Your task to perform on an android device: Open sound settings Image 0: 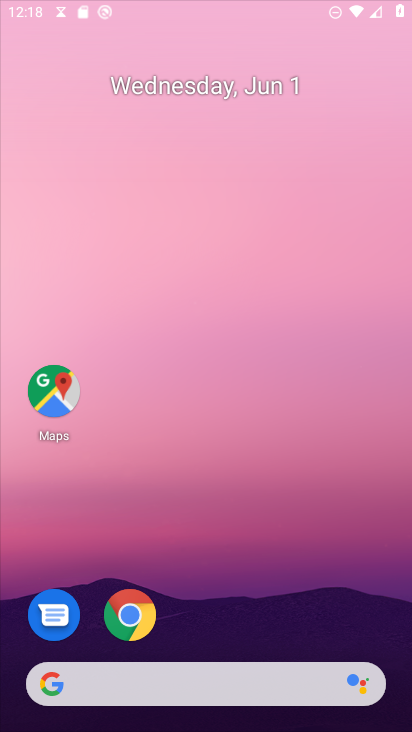
Step 0: click (289, 103)
Your task to perform on an android device: Open sound settings Image 1: 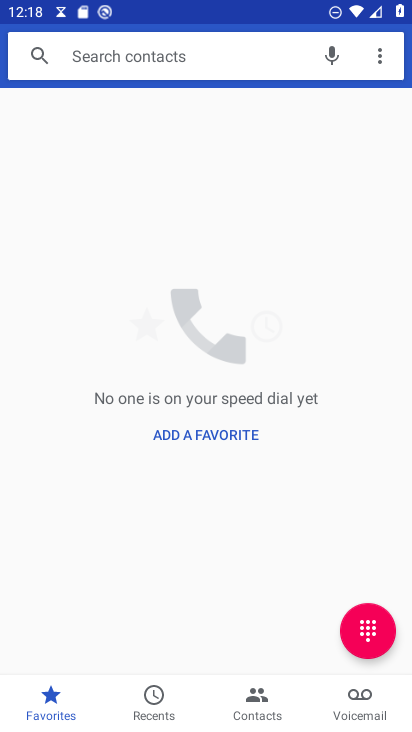
Step 1: press home button
Your task to perform on an android device: Open sound settings Image 2: 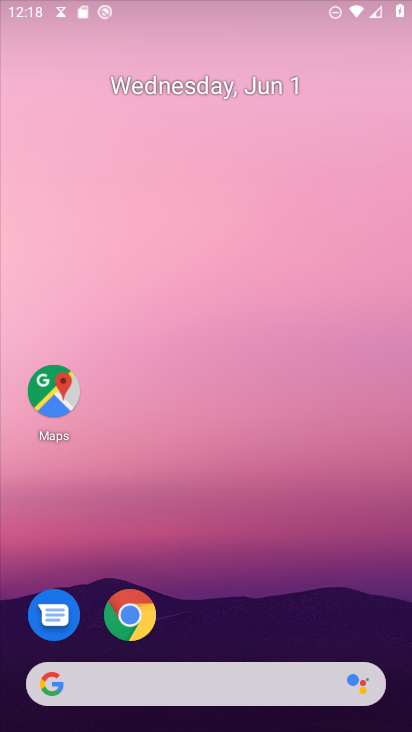
Step 2: drag from (160, 632) to (287, 73)
Your task to perform on an android device: Open sound settings Image 3: 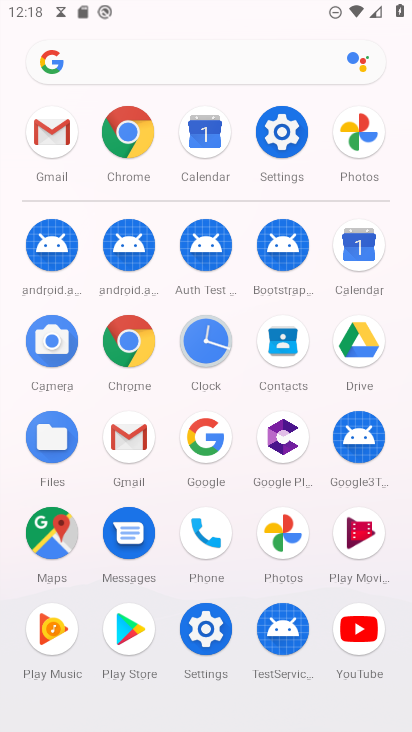
Step 3: click (304, 137)
Your task to perform on an android device: Open sound settings Image 4: 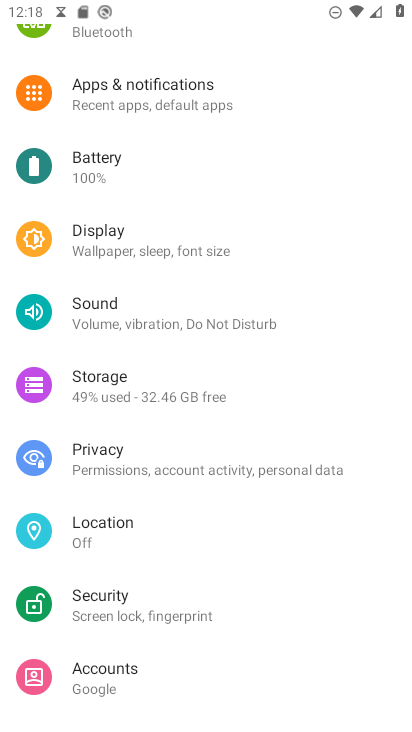
Step 4: drag from (183, 152) to (233, 641)
Your task to perform on an android device: Open sound settings Image 5: 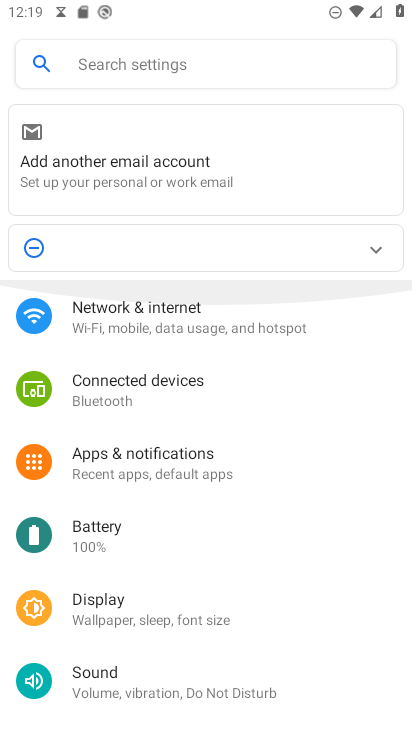
Step 5: click (233, 641)
Your task to perform on an android device: Open sound settings Image 6: 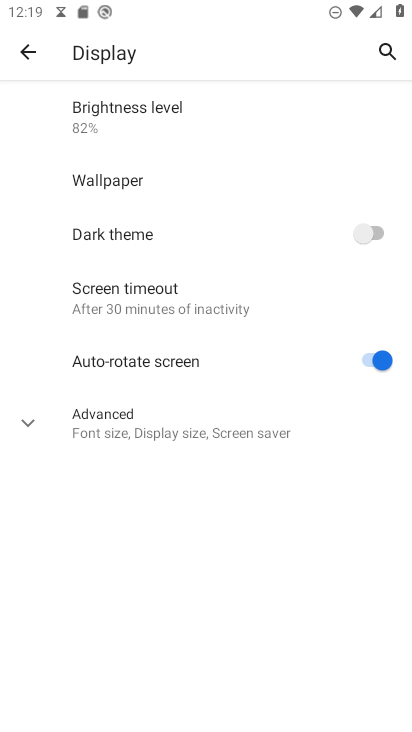
Step 6: click (231, 681)
Your task to perform on an android device: Open sound settings Image 7: 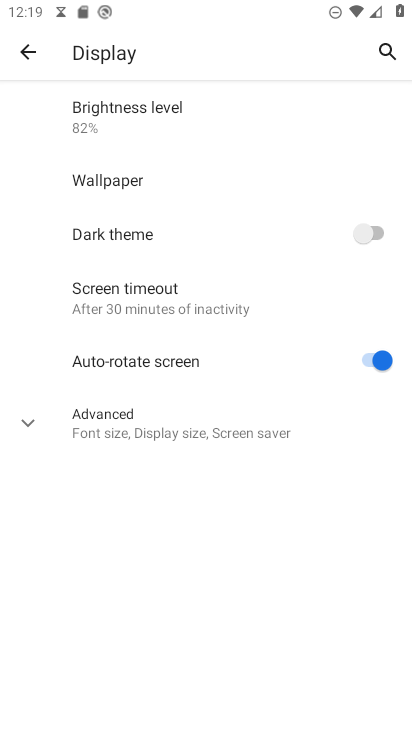
Step 7: press back button
Your task to perform on an android device: Open sound settings Image 8: 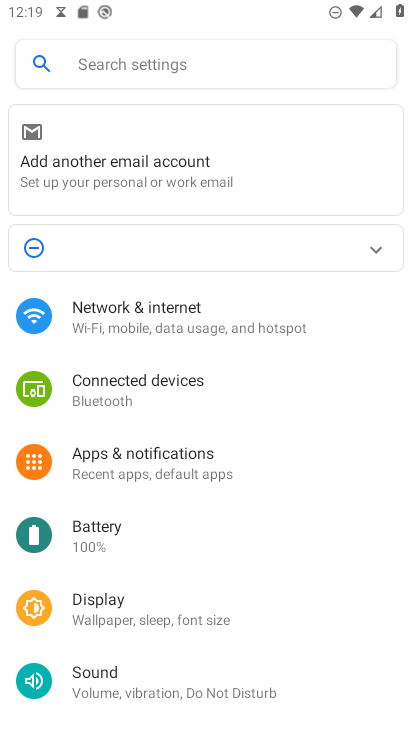
Step 8: click (224, 677)
Your task to perform on an android device: Open sound settings Image 9: 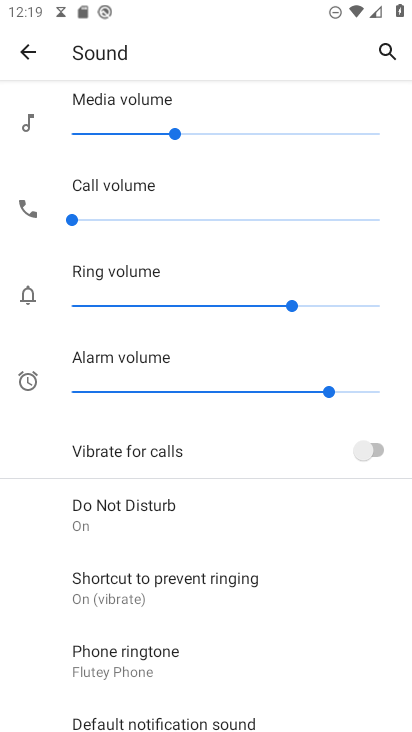
Step 9: task complete